Your task to perform on an android device: open chrome and create a bookmark for the current page Image 0: 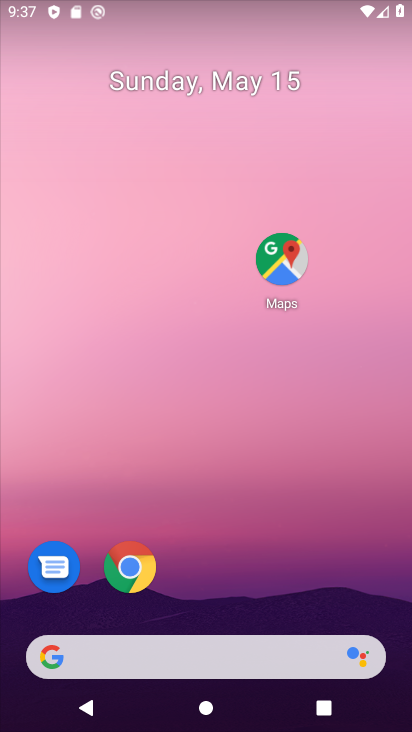
Step 0: click (135, 563)
Your task to perform on an android device: open chrome and create a bookmark for the current page Image 1: 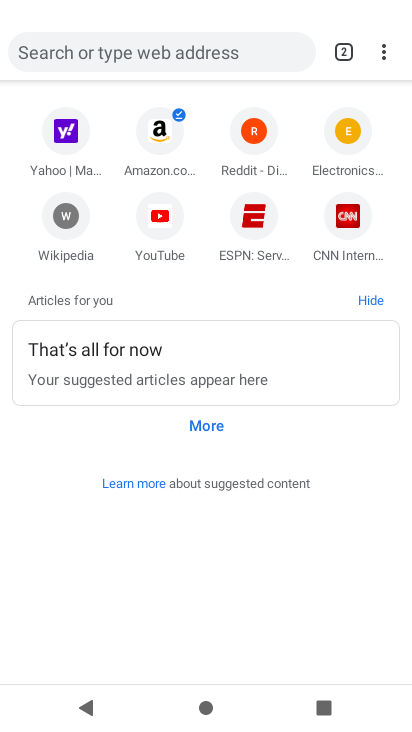
Step 1: click (374, 55)
Your task to perform on an android device: open chrome and create a bookmark for the current page Image 2: 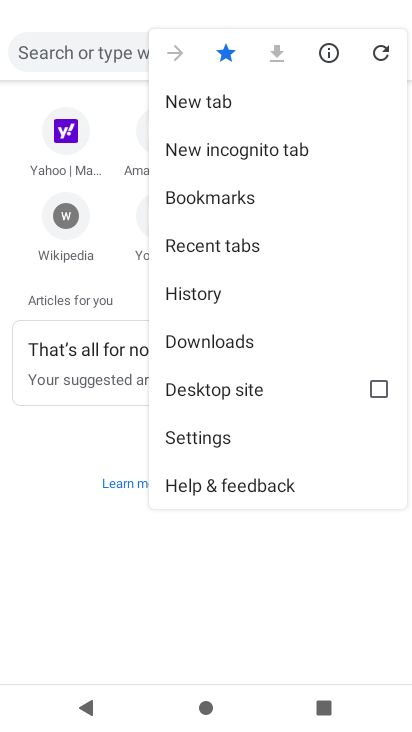
Step 2: task complete